Your task to perform on an android device: Open settings Image 0: 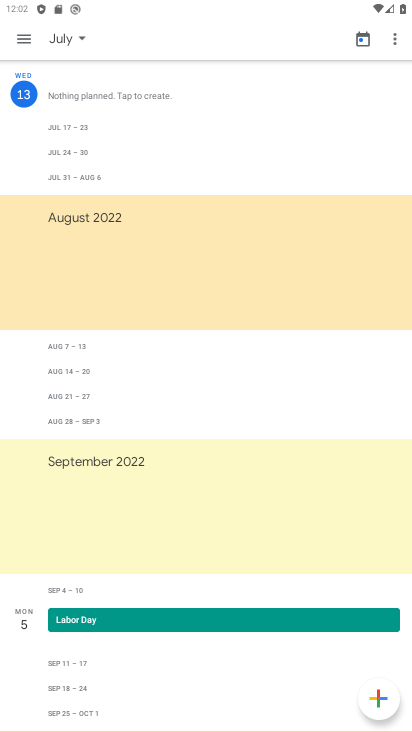
Step 0: press home button
Your task to perform on an android device: Open settings Image 1: 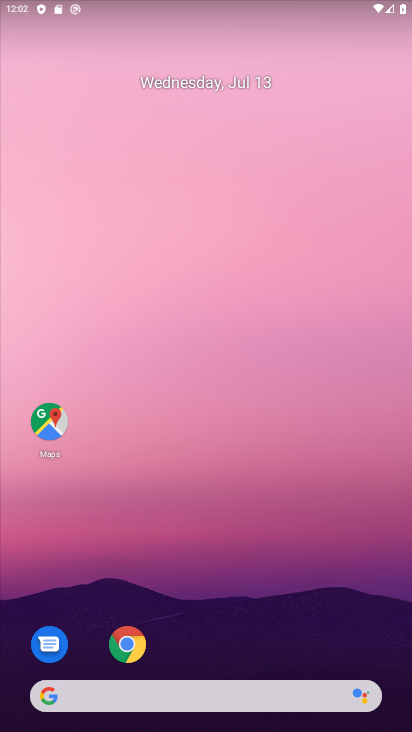
Step 1: drag from (213, 152) to (232, 41)
Your task to perform on an android device: Open settings Image 2: 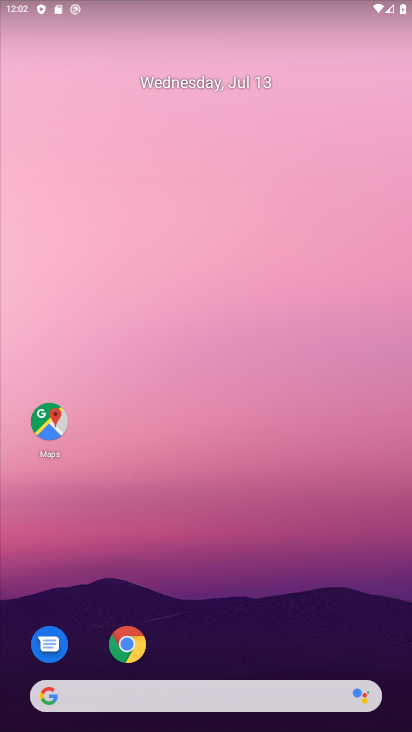
Step 2: drag from (278, 532) to (296, 3)
Your task to perform on an android device: Open settings Image 3: 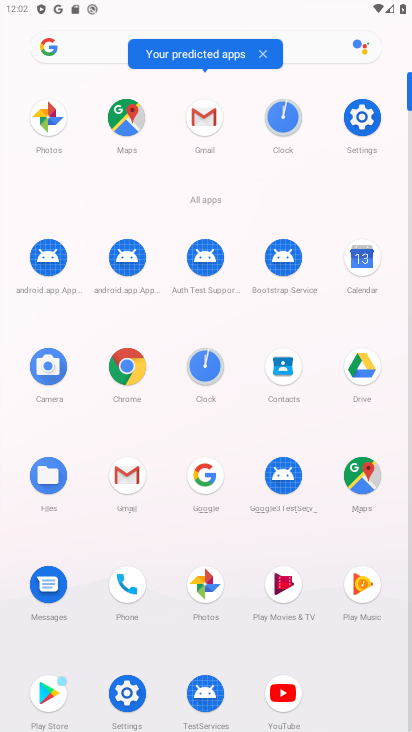
Step 3: click (359, 124)
Your task to perform on an android device: Open settings Image 4: 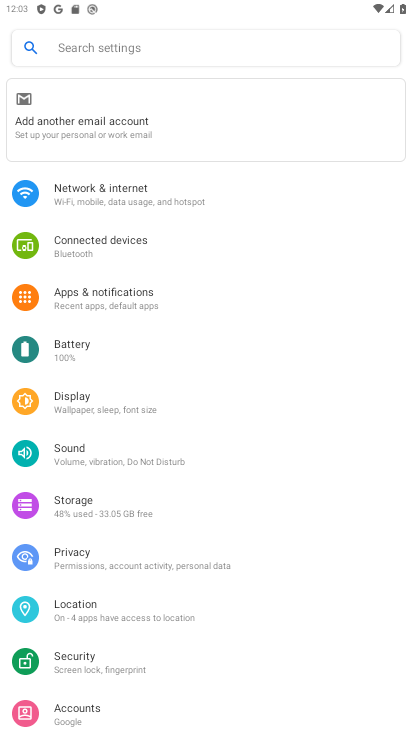
Step 4: task complete